Your task to perform on an android device: turn on bluetooth scan Image 0: 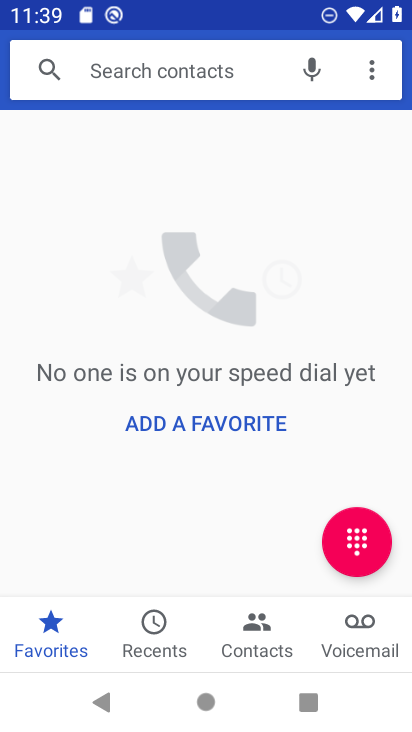
Step 0: drag from (372, 542) to (347, 401)
Your task to perform on an android device: turn on bluetooth scan Image 1: 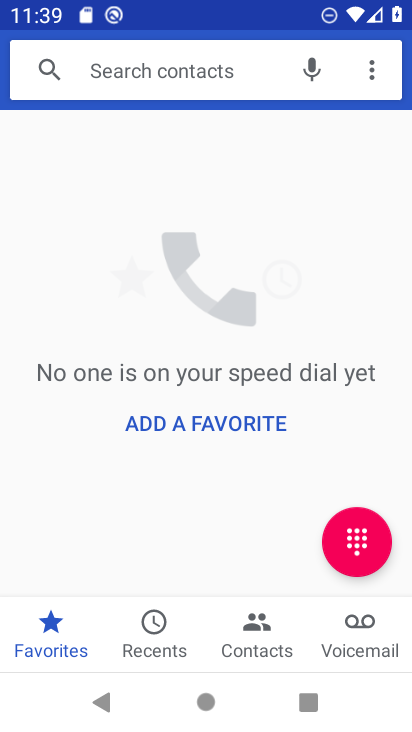
Step 1: press home button
Your task to perform on an android device: turn on bluetooth scan Image 2: 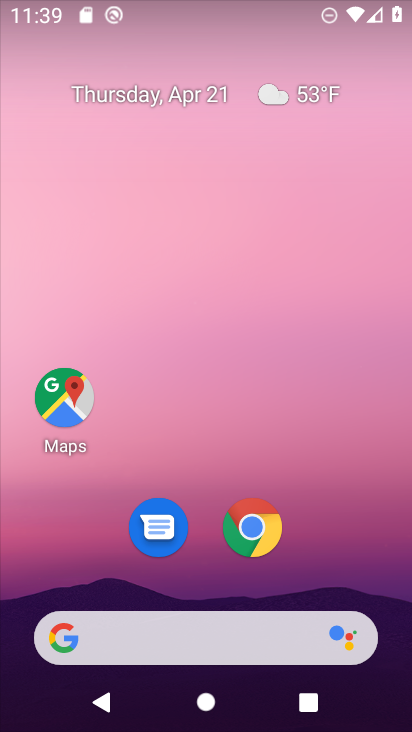
Step 2: drag from (335, 552) to (330, 181)
Your task to perform on an android device: turn on bluetooth scan Image 3: 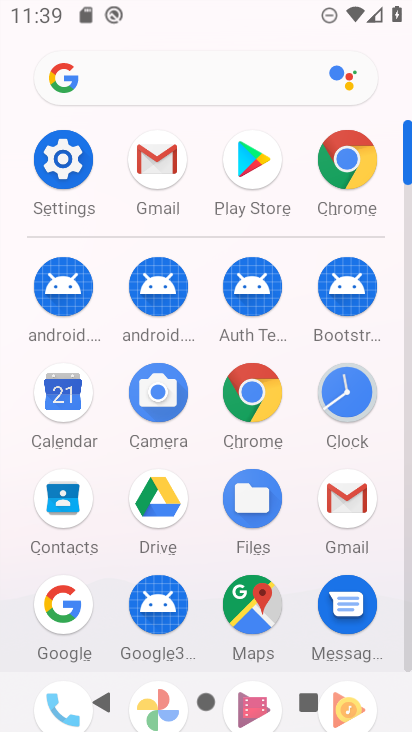
Step 3: click (58, 166)
Your task to perform on an android device: turn on bluetooth scan Image 4: 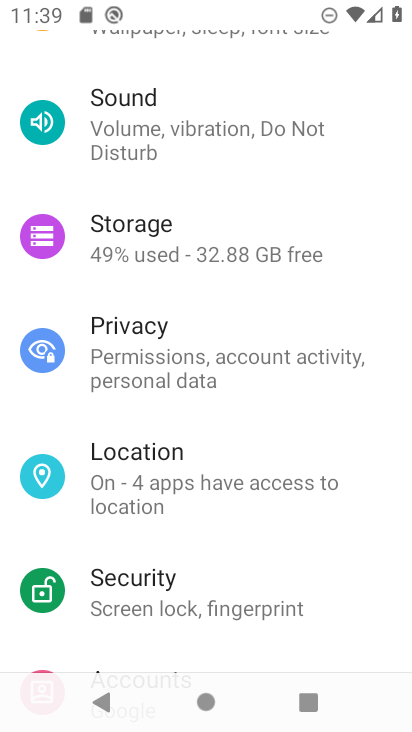
Step 4: drag from (359, 259) to (367, 403)
Your task to perform on an android device: turn on bluetooth scan Image 5: 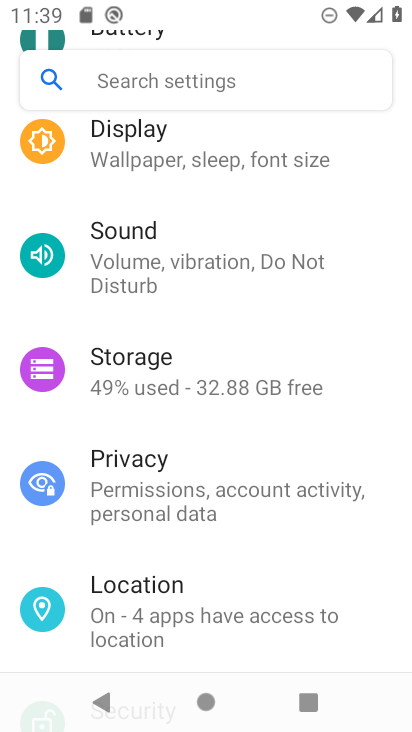
Step 5: drag from (371, 258) to (371, 403)
Your task to perform on an android device: turn on bluetooth scan Image 6: 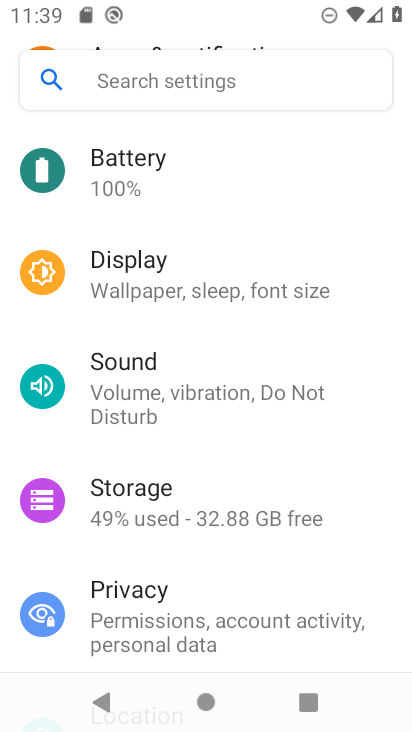
Step 6: drag from (377, 262) to (381, 460)
Your task to perform on an android device: turn on bluetooth scan Image 7: 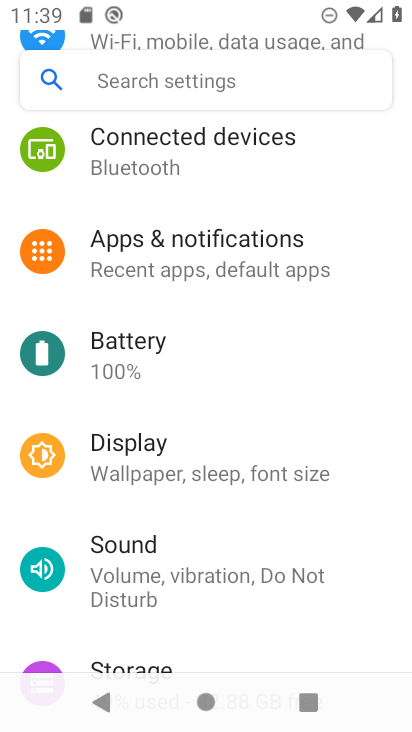
Step 7: drag from (381, 235) to (375, 443)
Your task to perform on an android device: turn on bluetooth scan Image 8: 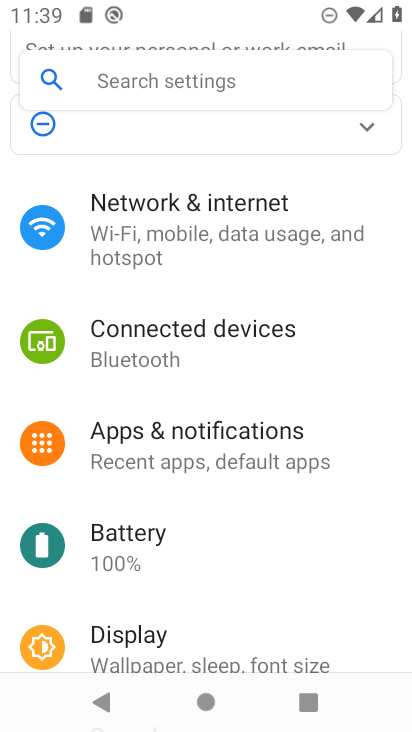
Step 8: drag from (352, 323) to (359, 512)
Your task to perform on an android device: turn on bluetooth scan Image 9: 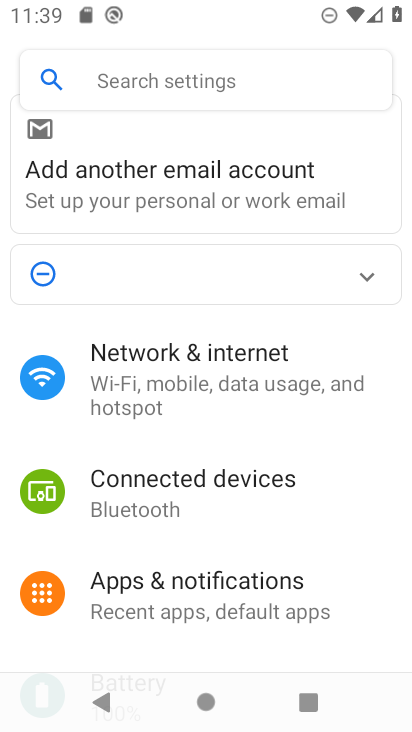
Step 9: drag from (354, 576) to (359, 402)
Your task to perform on an android device: turn on bluetooth scan Image 10: 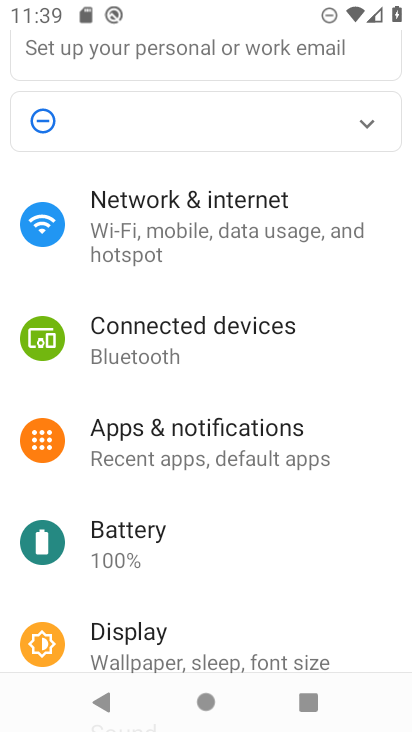
Step 10: drag from (358, 562) to (356, 403)
Your task to perform on an android device: turn on bluetooth scan Image 11: 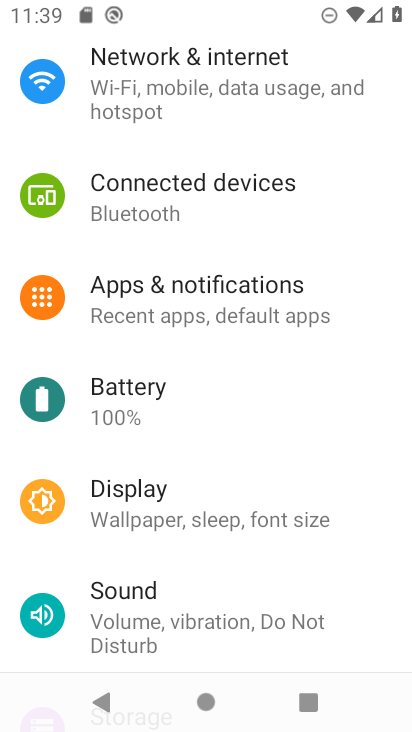
Step 11: drag from (353, 599) to (354, 445)
Your task to perform on an android device: turn on bluetooth scan Image 12: 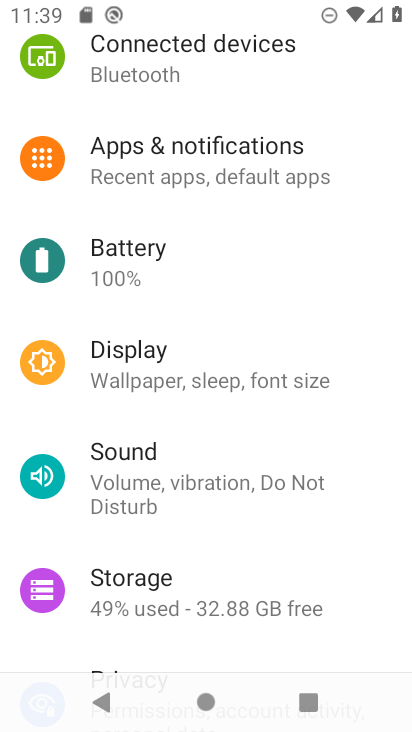
Step 12: drag from (356, 582) to (358, 414)
Your task to perform on an android device: turn on bluetooth scan Image 13: 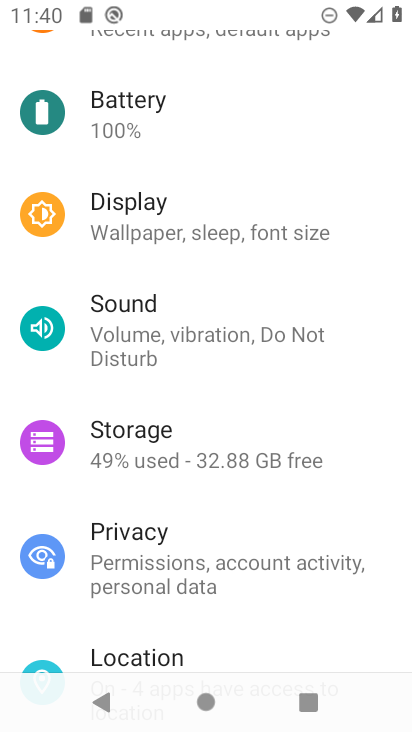
Step 13: drag from (365, 608) to (376, 423)
Your task to perform on an android device: turn on bluetooth scan Image 14: 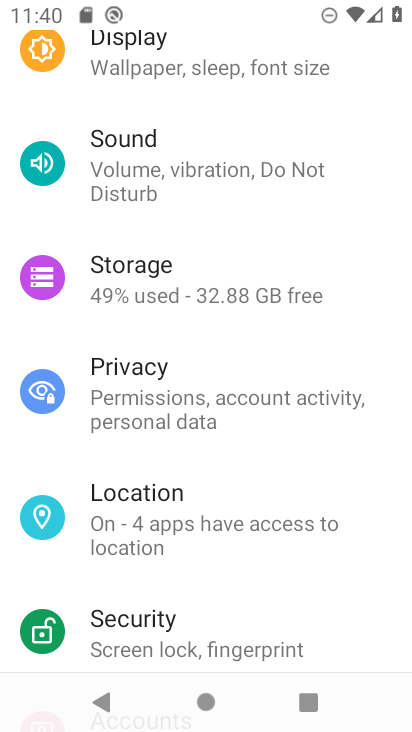
Step 14: click (335, 514)
Your task to perform on an android device: turn on bluetooth scan Image 15: 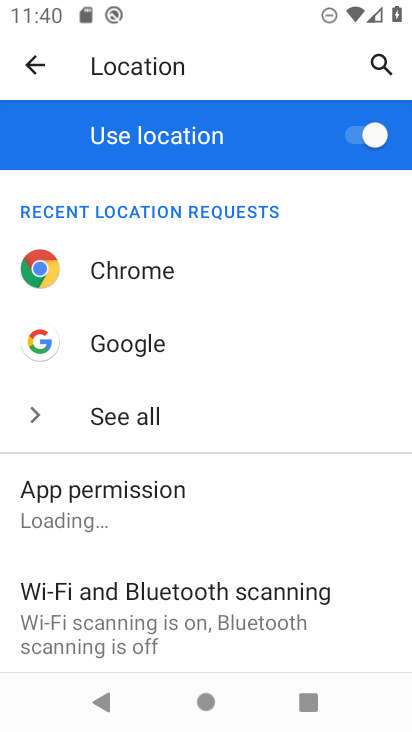
Step 15: drag from (330, 518) to (337, 269)
Your task to perform on an android device: turn on bluetooth scan Image 16: 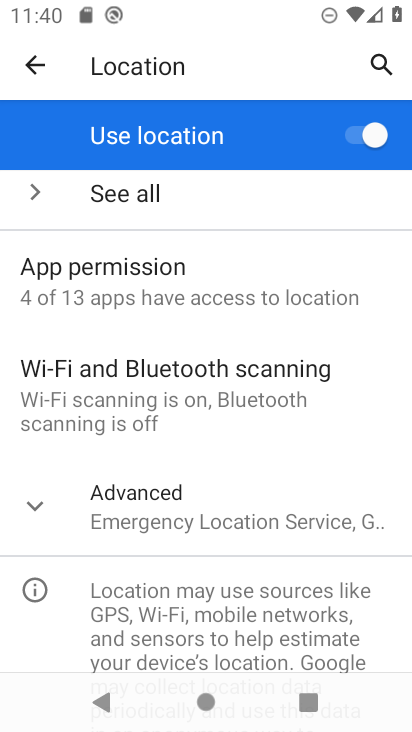
Step 16: click (270, 384)
Your task to perform on an android device: turn on bluetooth scan Image 17: 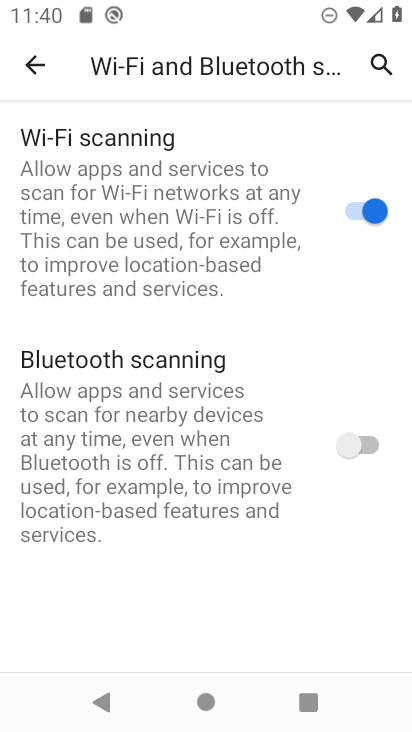
Step 17: click (354, 441)
Your task to perform on an android device: turn on bluetooth scan Image 18: 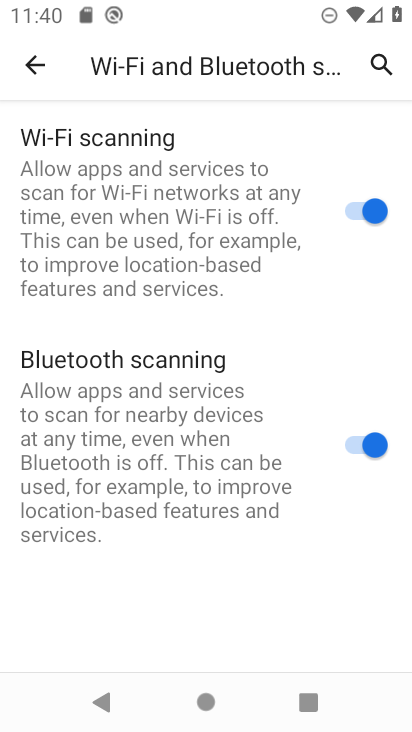
Step 18: task complete